Your task to perform on an android device: turn on translation in the chrome app Image 0: 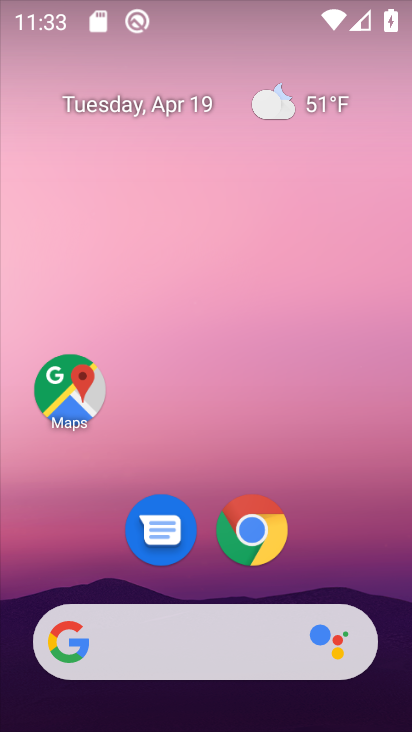
Step 0: drag from (182, 598) to (311, 58)
Your task to perform on an android device: turn on translation in the chrome app Image 1: 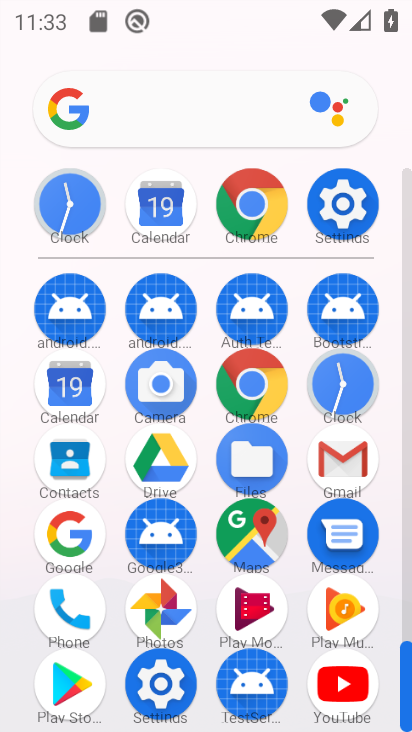
Step 1: click (265, 211)
Your task to perform on an android device: turn on translation in the chrome app Image 2: 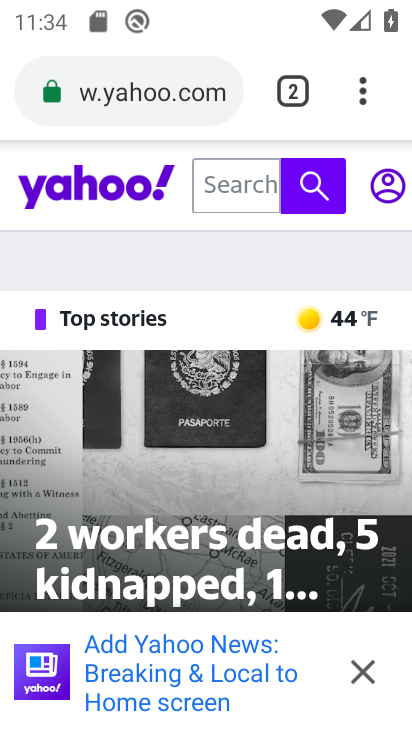
Step 2: click (365, 95)
Your task to perform on an android device: turn on translation in the chrome app Image 3: 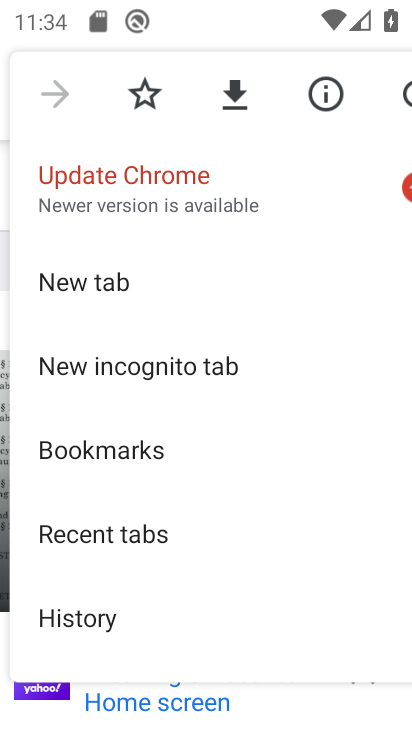
Step 3: drag from (229, 546) to (364, 144)
Your task to perform on an android device: turn on translation in the chrome app Image 4: 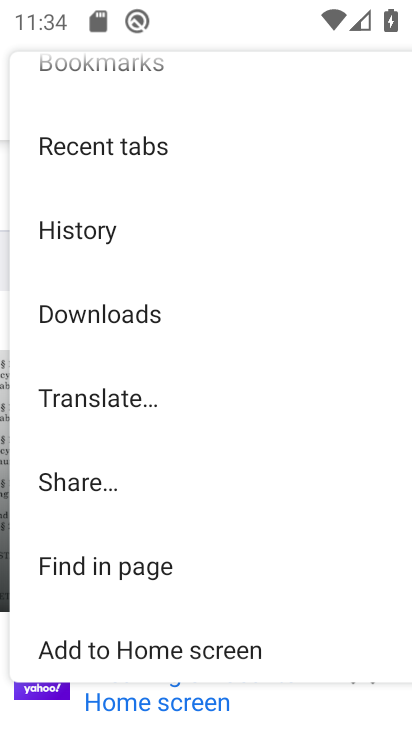
Step 4: drag from (180, 527) to (328, 97)
Your task to perform on an android device: turn on translation in the chrome app Image 5: 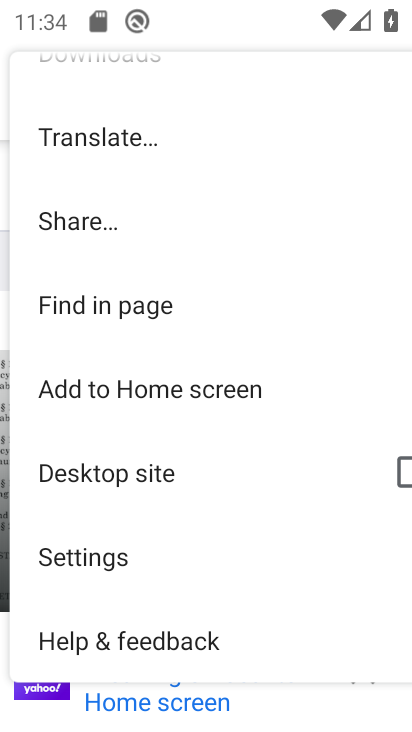
Step 5: click (100, 556)
Your task to perform on an android device: turn on translation in the chrome app Image 6: 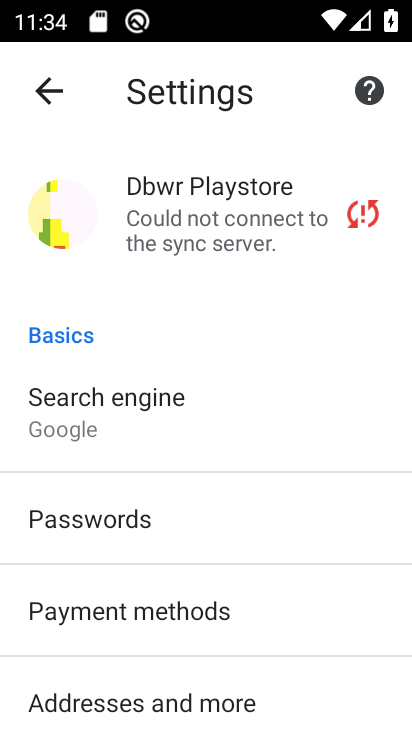
Step 6: drag from (174, 624) to (368, 129)
Your task to perform on an android device: turn on translation in the chrome app Image 7: 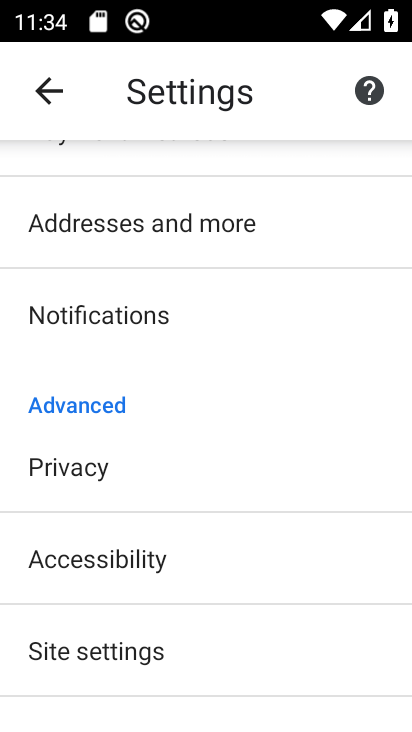
Step 7: drag from (191, 574) to (361, 202)
Your task to perform on an android device: turn on translation in the chrome app Image 8: 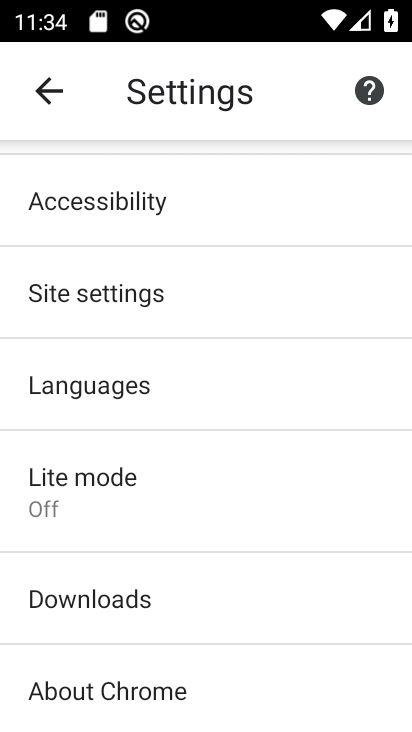
Step 8: click (117, 390)
Your task to perform on an android device: turn on translation in the chrome app Image 9: 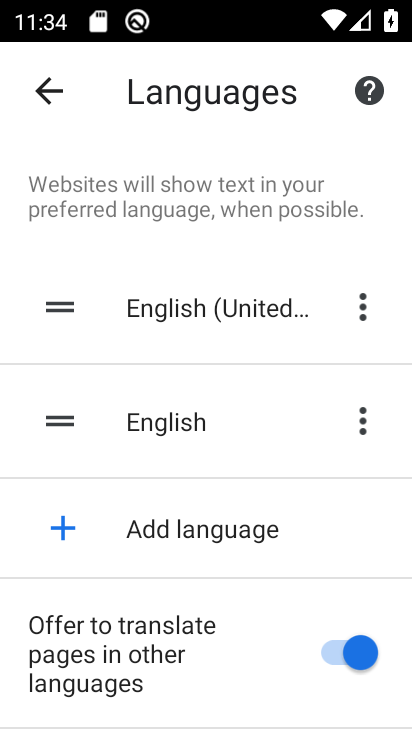
Step 9: task complete